Your task to perform on an android device: Go to Maps Image 0: 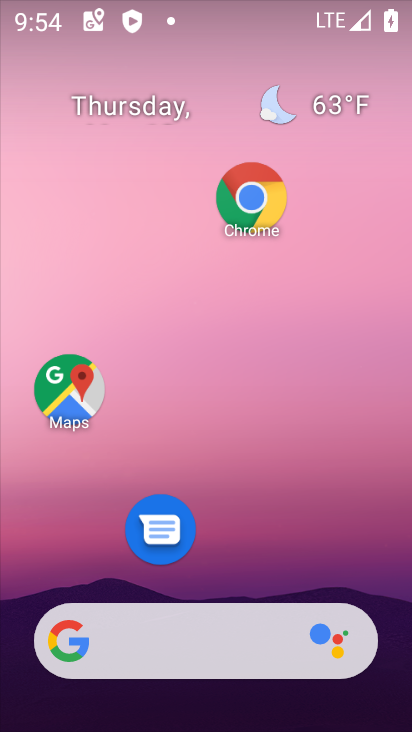
Step 0: drag from (279, 572) to (317, 81)
Your task to perform on an android device: Go to Maps Image 1: 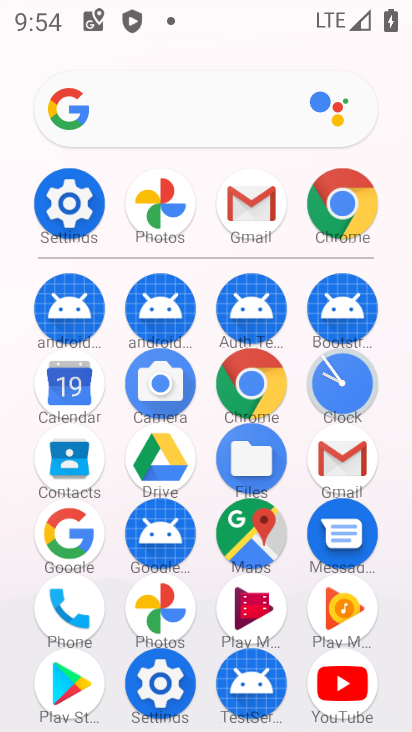
Step 1: click (266, 531)
Your task to perform on an android device: Go to Maps Image 2: 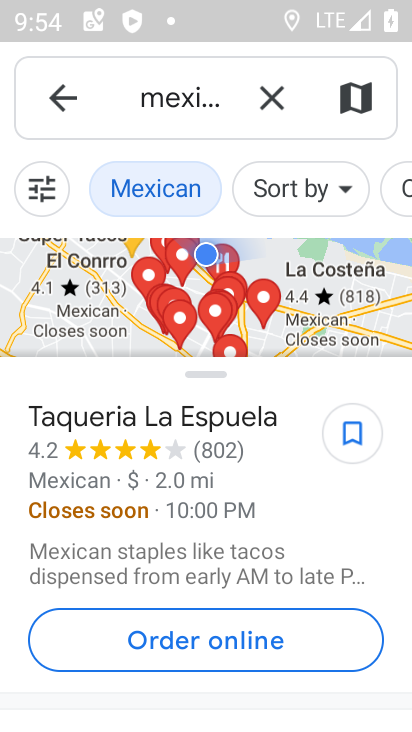
Step 2: task complete